Your task to perform on an android device: change your default location settings in chrome Image 0: 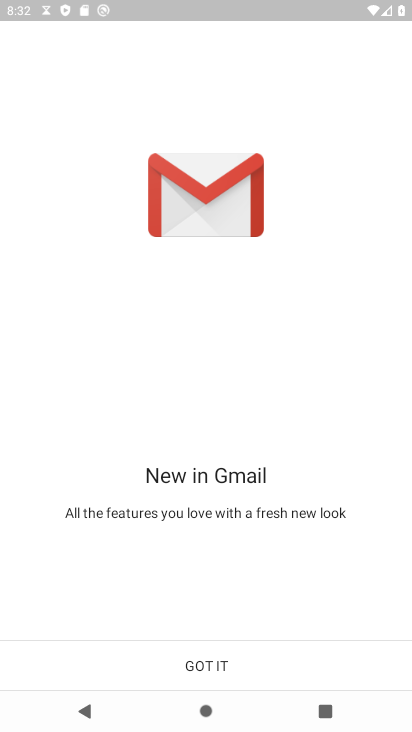
Step 0: click (207, 649)
Your task to perform on an android device: change your default location settings in chrome Image 1: 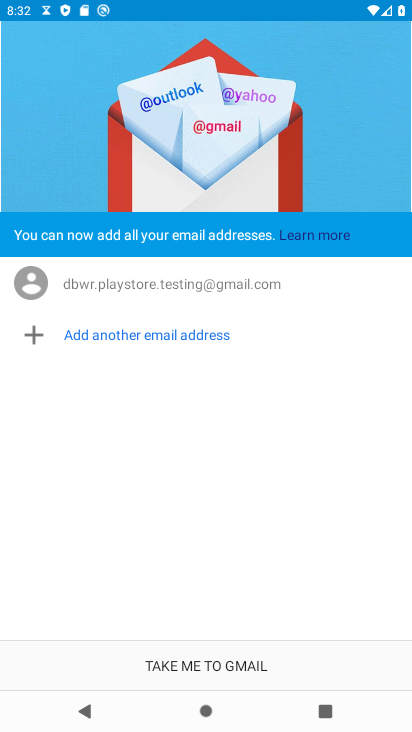
Step 1: press back button
Your task to perform on an android device: change your default location settings in chrome Image 2: 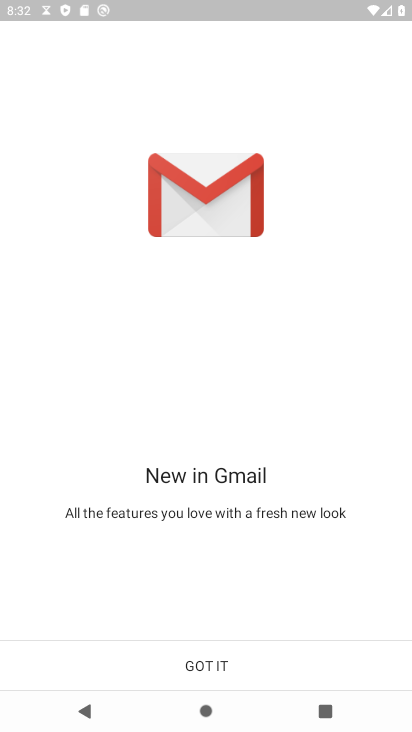
Step 2: press back button
Your task to perform on an android device: change your default location settings in chrome Image 3: 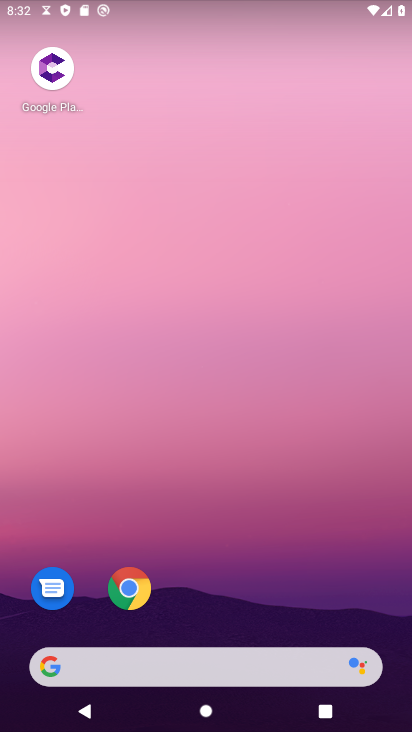
Step 3: click (130, 583)
Your task to perform on an android device: change your default location settings in chrome Image 4: 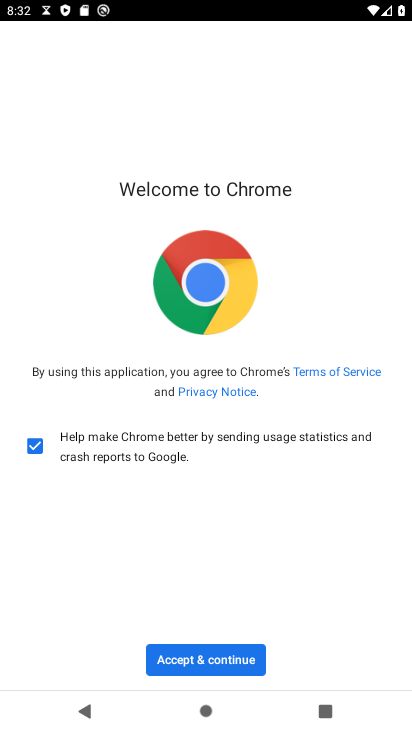
Step 4: click (242, 660)
Your task to perform on an android device: change your default location settings in chrome Image 5: 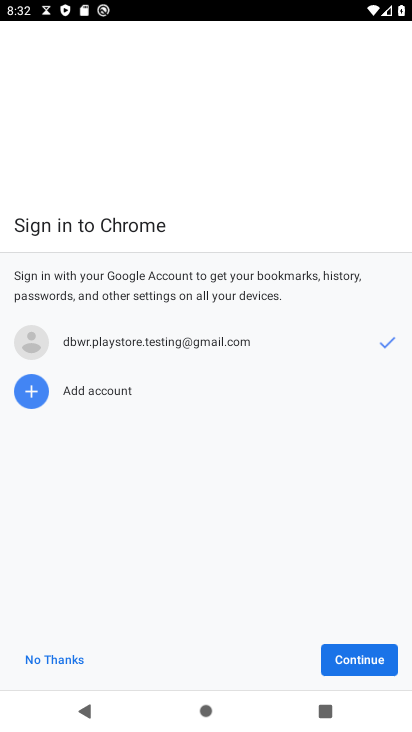
Step 5: click (357, 651)
Your task to perform on an android device: change your default location settings in chrome Image 6: 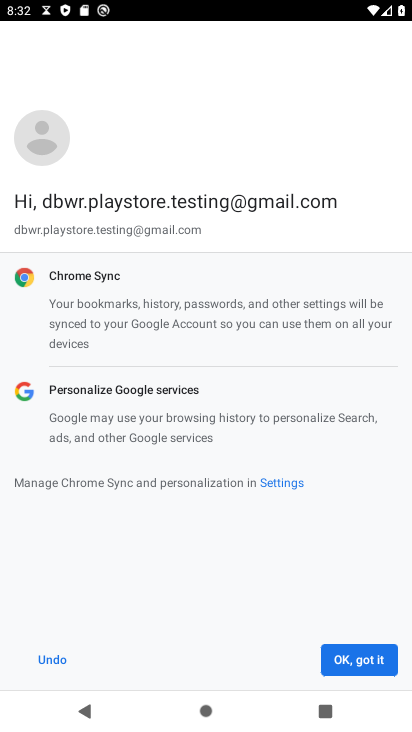
Step 6: click (376, 656)
Your task to perform on an android device: change your default location settings in chrome Image 7: 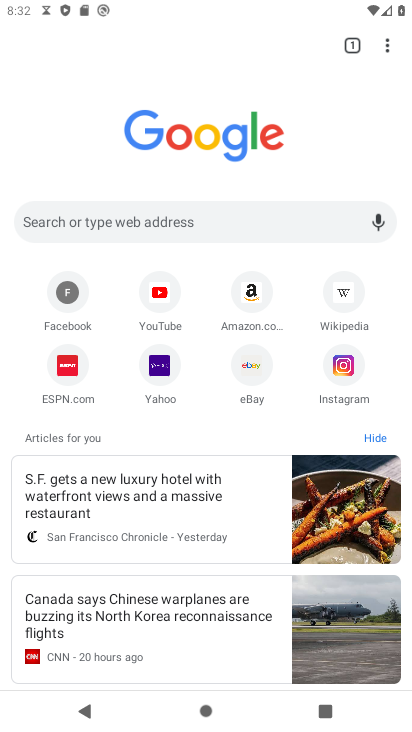
Step 7: drag from (386, 36) to (212, 381)
Your task to perform on an android device: change your default location settings in chrome Image 8: 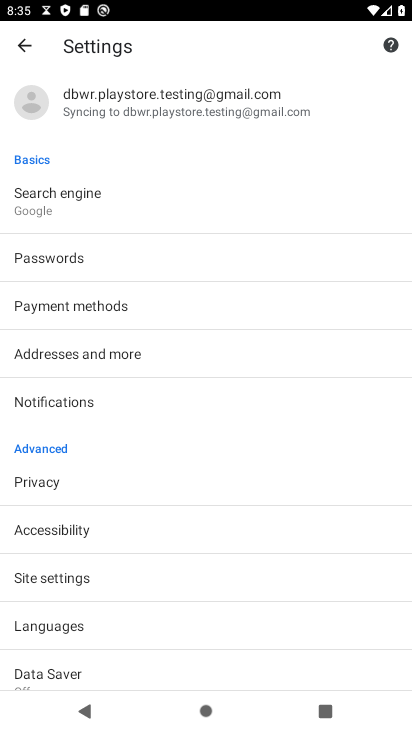
Step 8: drag from (125, 597) to (163, 365)
Your task to perform on an android device: change your default location settings in chrome Image 9: 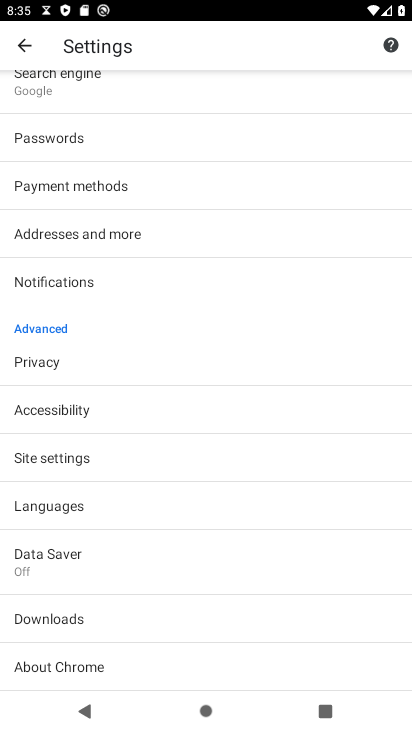
Step 9: click (58, 454)
Your task to perform on an android device: change your default location settings in chrome Image 10: 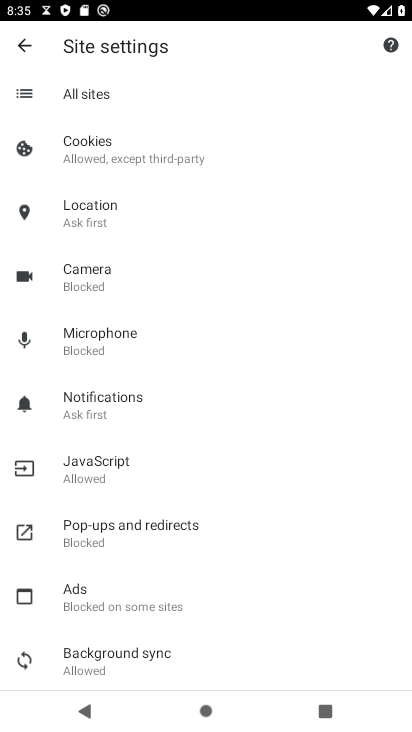
Step 10: click (117, 209)
Your task to perform on an android device: change your default location settings in chrome Image 11: 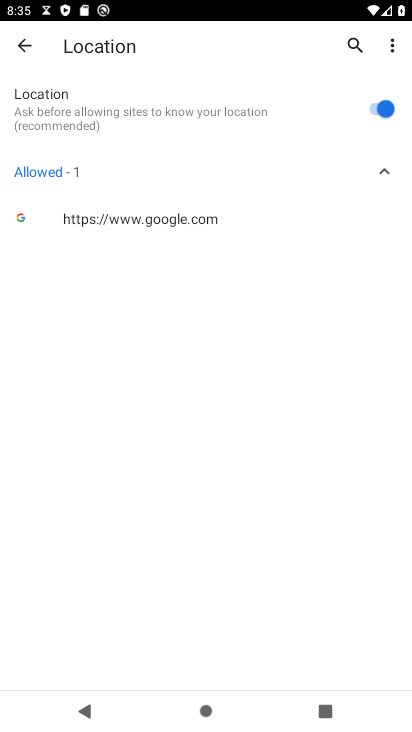
Step 11: click (379, 110)
Your task to perform on an android device: change your default location settings in chrome Image 12: 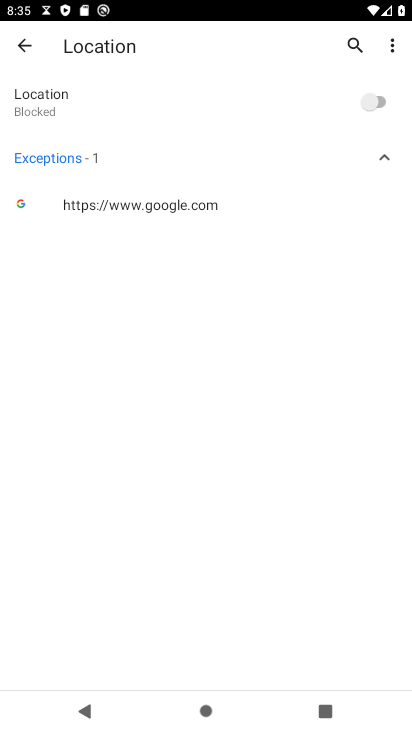
Step 12: task complete